Your task to perform on an android device: clear all cookies in the chrome app Image 0: 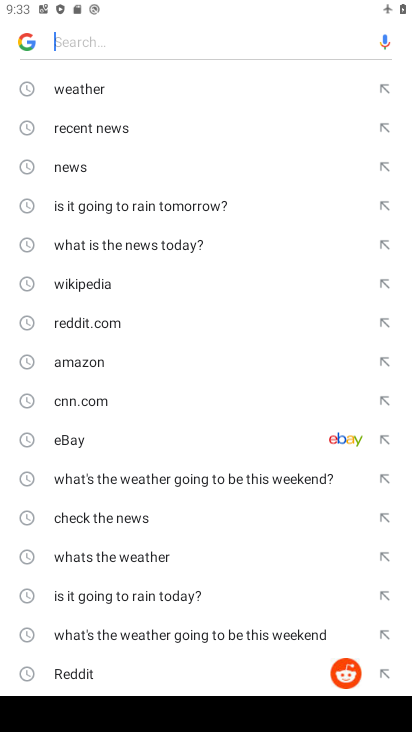
Step 0: press home button
Your task to perform on an android device: clear all cookies in the chrome app Image 1: 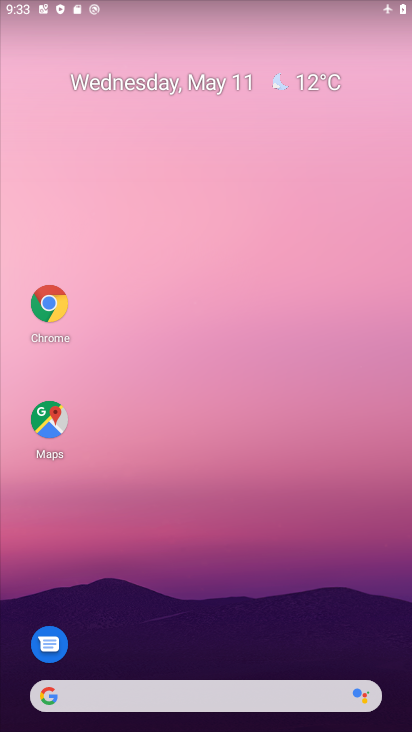
Step 1: click (45, 306)
Your task to perform on an android device: clear all cookies in the chrome app Image 2: 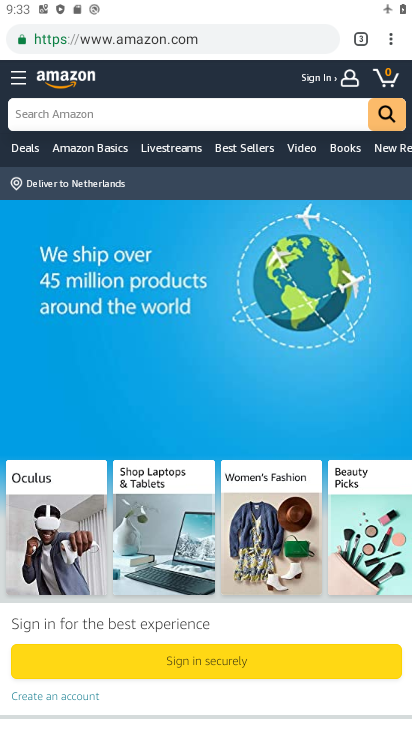
Step 2: click (391, 38)
Your task to perform on an android device: clear all cookies in the chrome app Image 3: 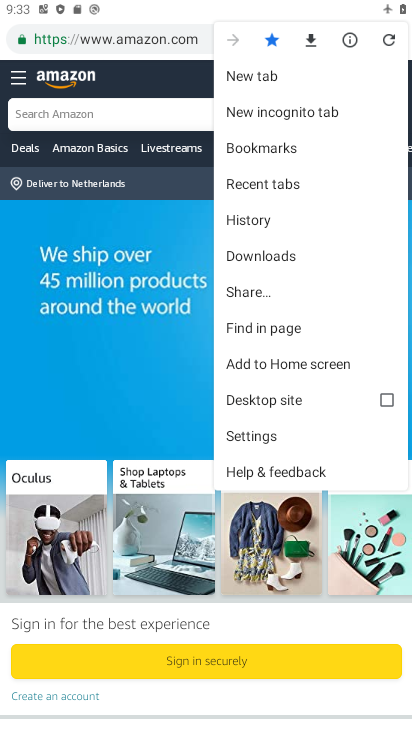
Step 3: click (245, 222)
Your task to perform on an android device: clear all cookies in the chrome app Image 4: 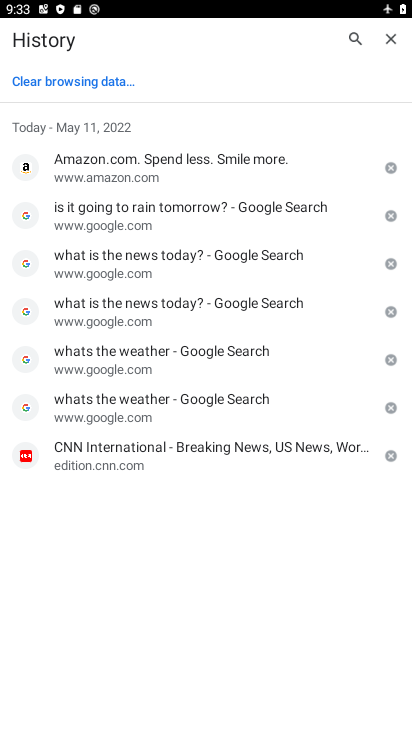
Step 4: click (104, 80)
Your task to perform on an android device: clear all cookies in the chrome app Image 5: 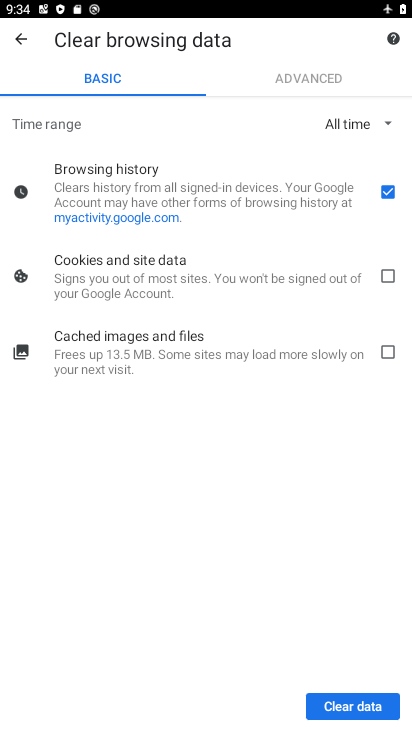
Step 5: click (387, 277)
Your task to perform on an android device: clear all cookies in the chrome app Image 6: 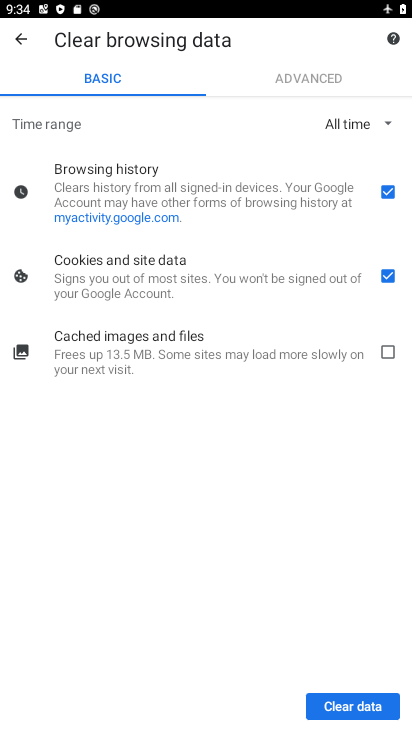
Step 6: click (356, 708)
Your task to perform on an android device: clear all cookies in the chrome app Image 7: 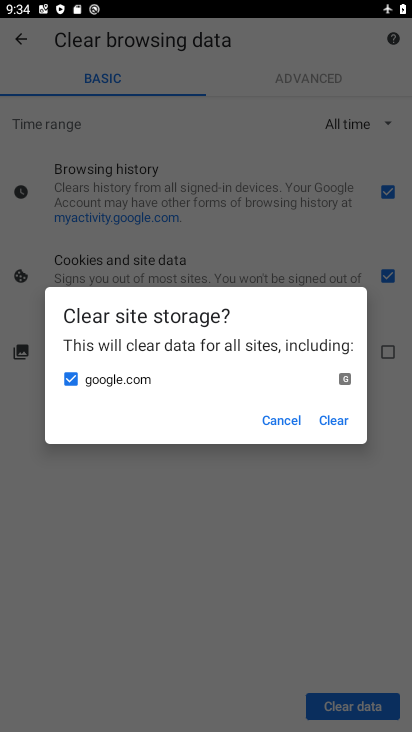
Step 7: click (331, 417)
Your task to perform on an android device: clear all cookies in the chrome app Image 8: 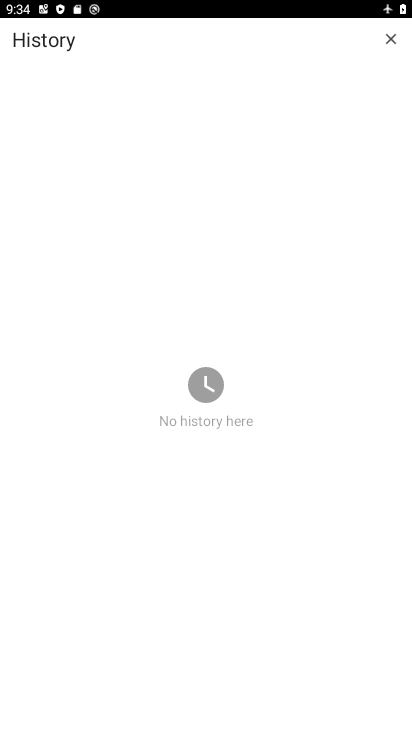
Step 8: task complete